Your task to perform on an android device: Is it going to rain tomorrow? Image 0: 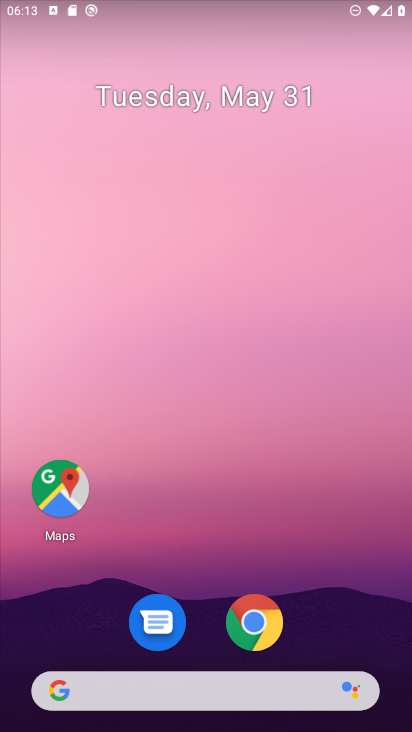
Step 0: click (292, 7)
Your task to perform on an android device: Is it going to rain tomorrow? Image 1: 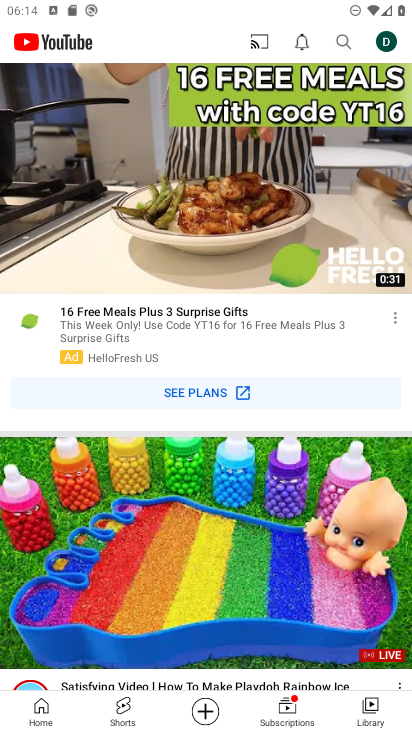
Step 1: press home button
Your task to perform on an android device: Is it going to rain tomorrow? Image 2: 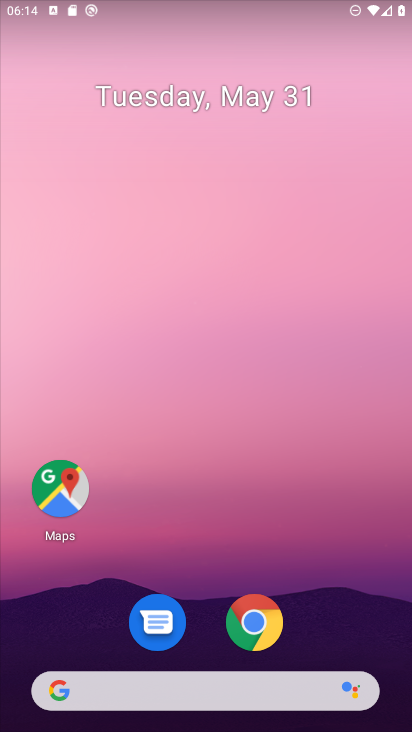
Step 2: drag from (52, 226) to (410, 234)
Your task to perform on an android device: Is it going to rain tomorrow? Image 3: 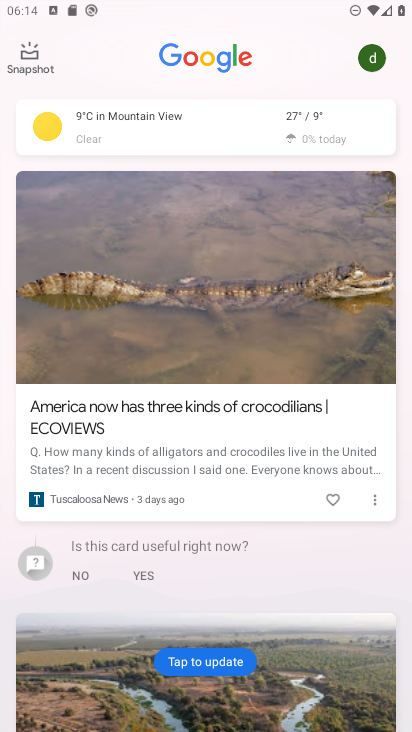
Step 3: click (202, 129)
Your task to perform on an android device: Is it going to rain tomorrow? Image 4: 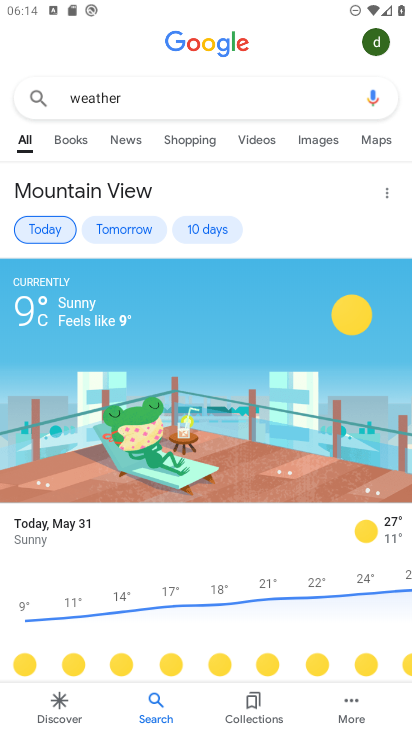
Step 4: click (134, 227)
Your task to perform on an android device: Is it going to rain tomorrow? Image 5: 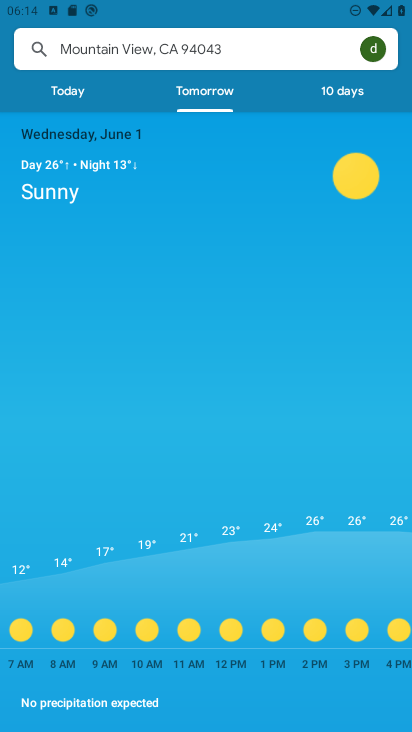
Step 5: task complete